Your task to perform on an android device: toggle location history Image 0: 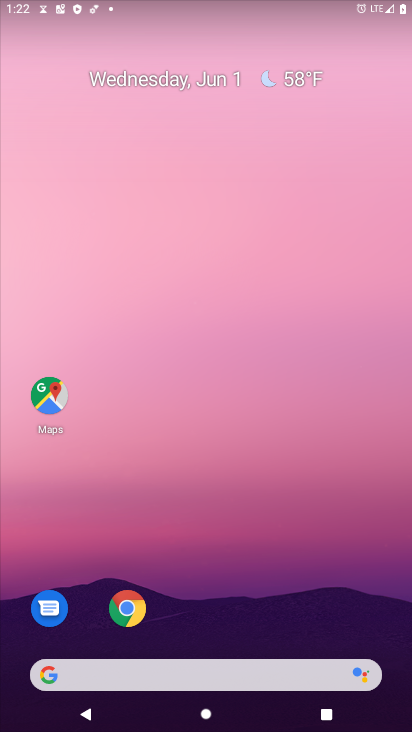
Step 0: drag from (221, 406) to (244, 0)
Your task to perform on an android device: toggle location history Image 1: 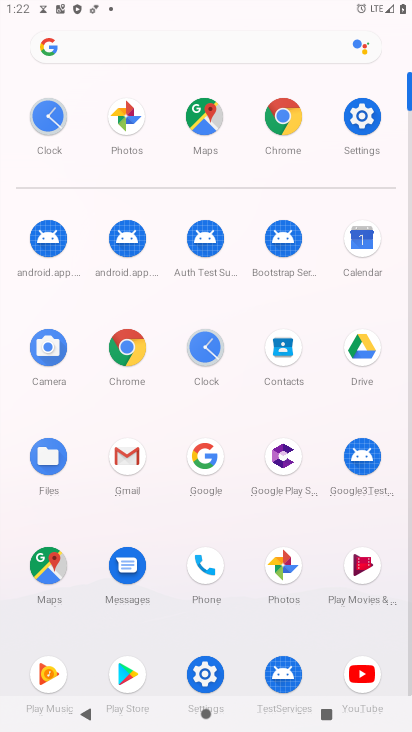
Step 1: click (366, 123)
Your task to perform on an android device: toggle location history Image 2: 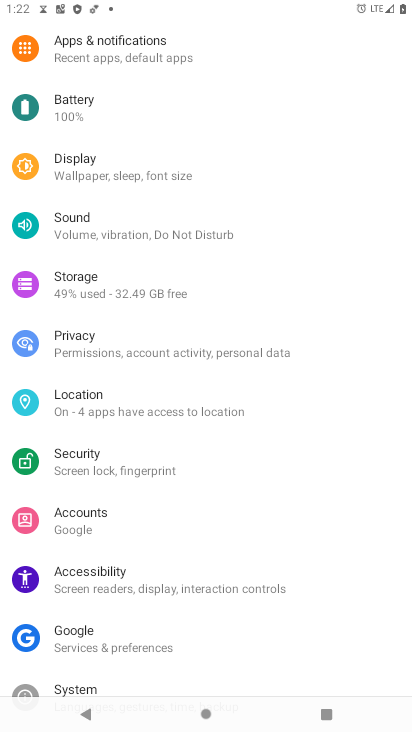
Step 2: click (143, 404)
Your task to perform on an android device: toggle location history Image 3: 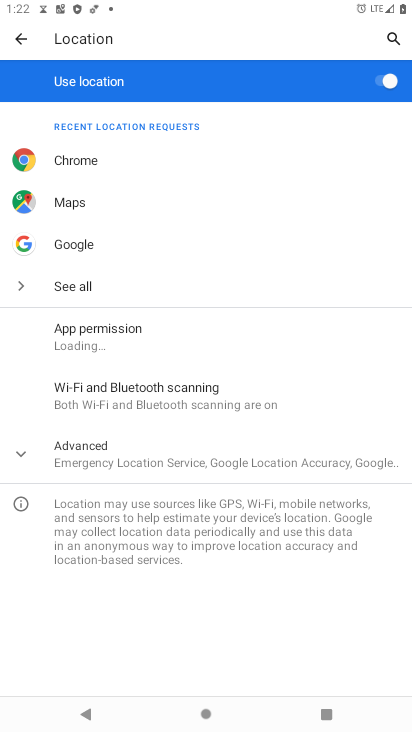
Step 3: click (148, 452)
Your task to perform on an android device: toggle location history Image 4: 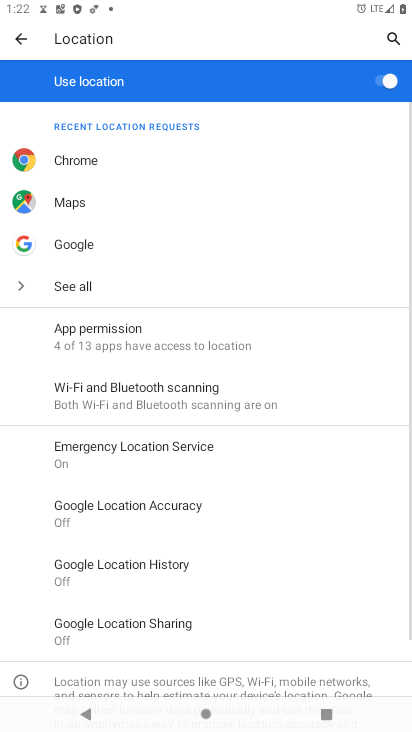
Step 4: click (152, 571)
Your task to perform on an android device: toggle location history Image 5: 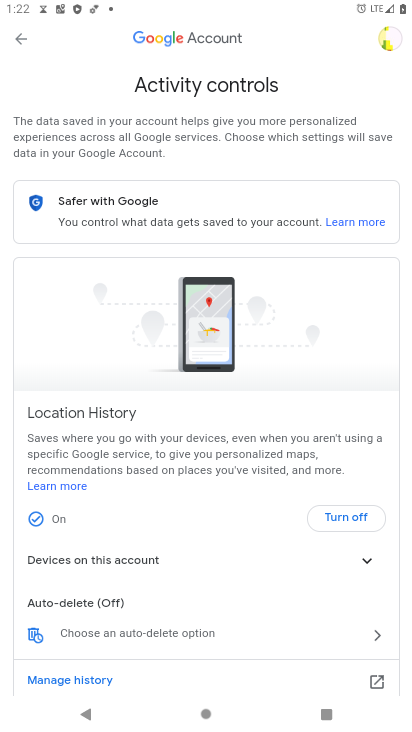
Step 5: click (71, 515)
Your task to perform on an android device: toggle location history Image 6: 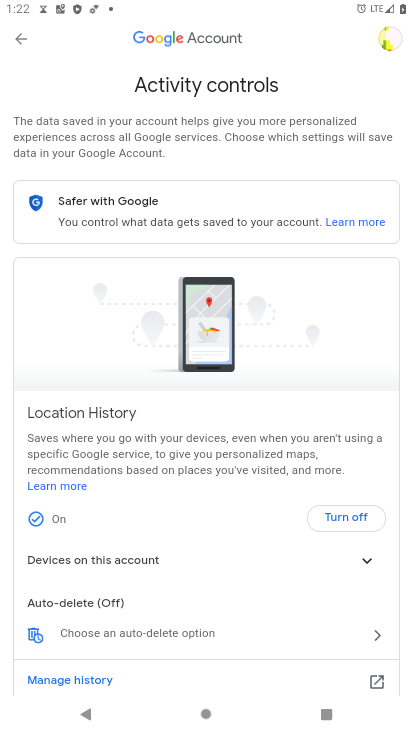
Step 6: click (71, 515)
Your task to perform on an android device: toggle location history Image 7: 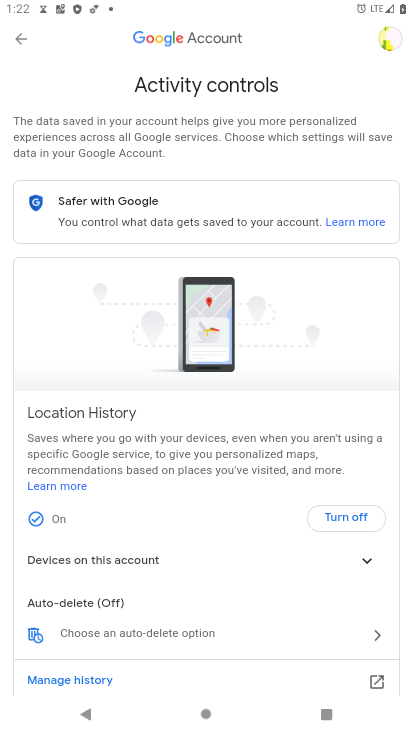
Step 7: click (71, 515)
Your task to perform on an android device: toggle location history Image 8: 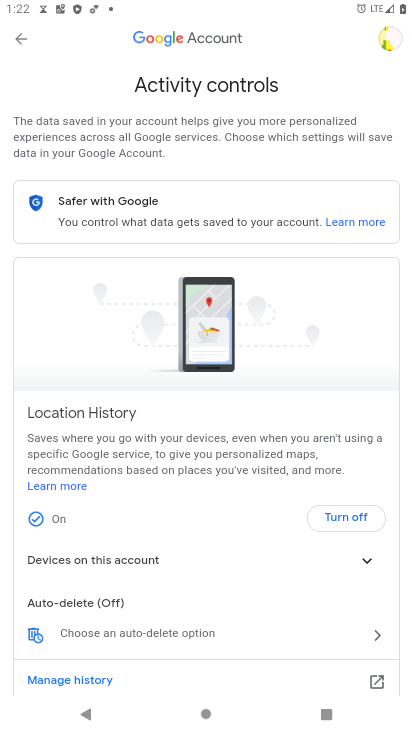
Step 8: click (375, 541)
Your task to perform on an android device: toggle location history Image 9: 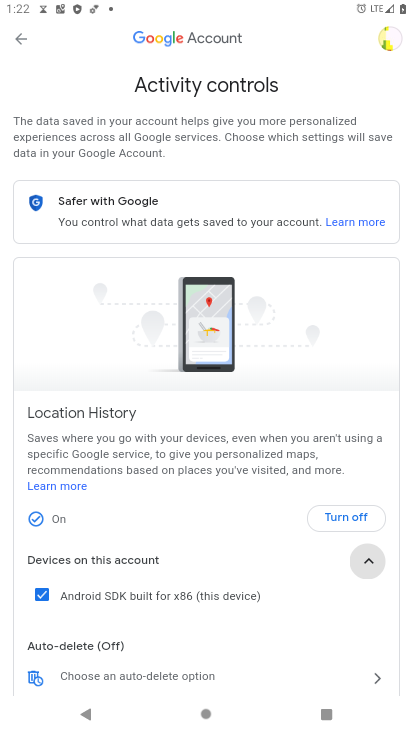
Step 9: click (366, 552)
Your task to perform on an android device: toggle location history Image 10: 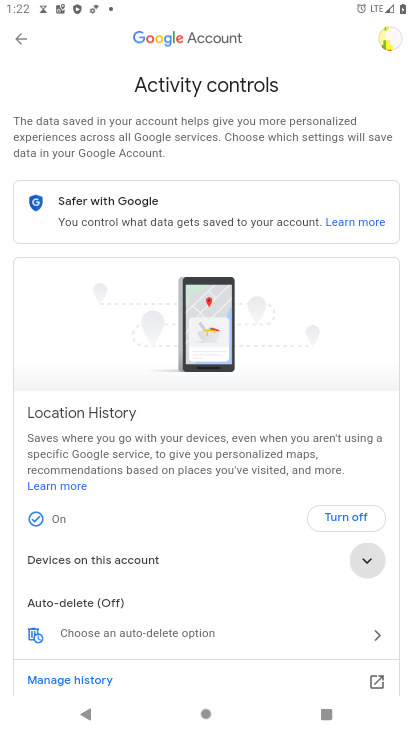
Step 10: click (364, 512)
Your task to perform on an android device: toggle location history Image 11: 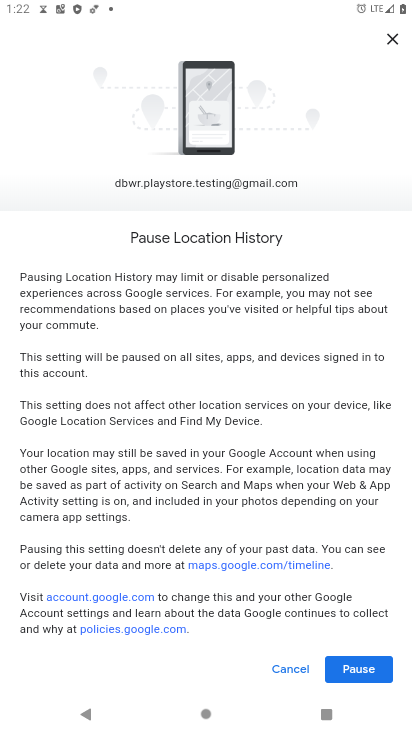
Step 11: click (337, 660)
Your task to perform on an android device: toggle location history Image 12: 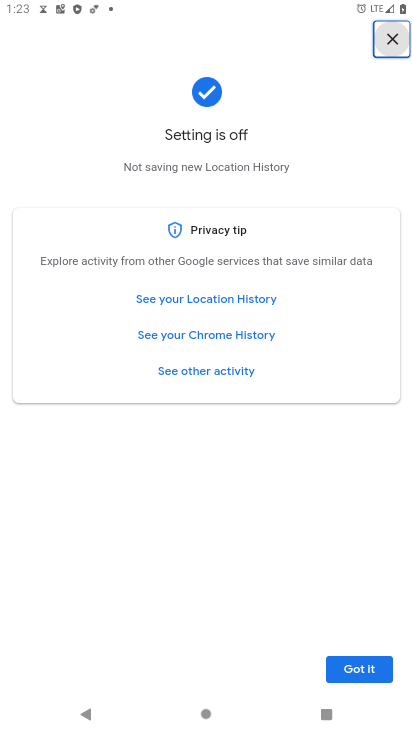
Step 12: click (229, 299)
Your task to perform on an android device: toggle location history Image 13: 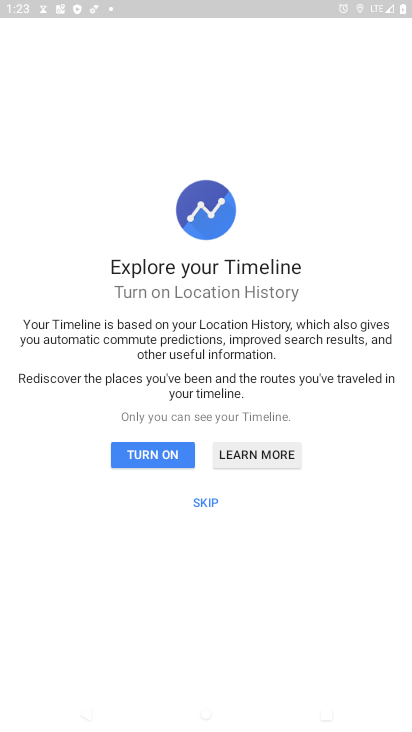
Step 13: click (151, 447)
Your task to perform on an android device: toggle location history Image 14: 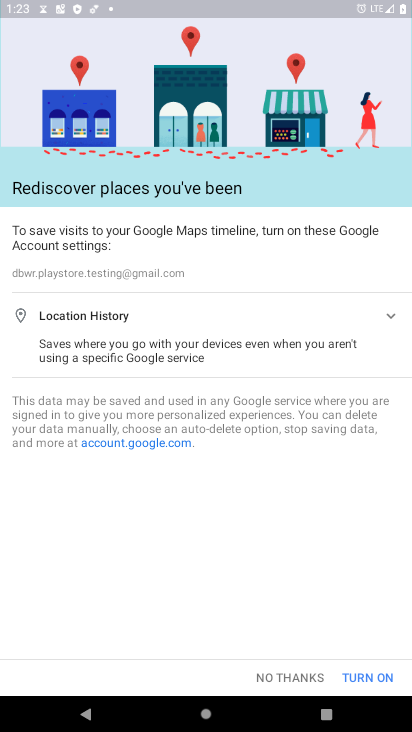
Step 14: click (384, 670)
Your task to perform on an android device: toggle location history Image 15: 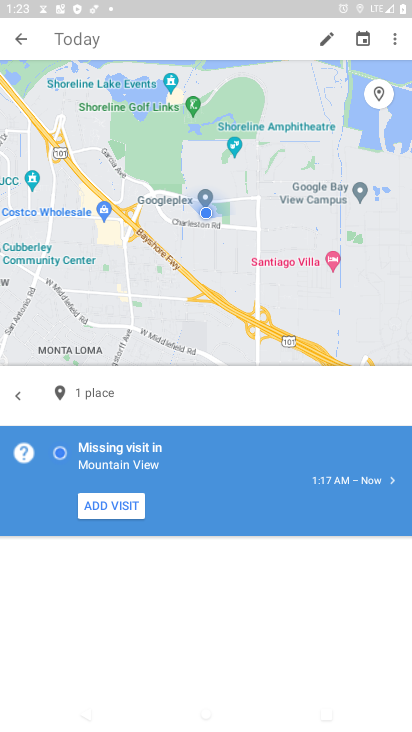
Step 15: task complete